Your task to perform on an android device: Go to Google maps Image 0: 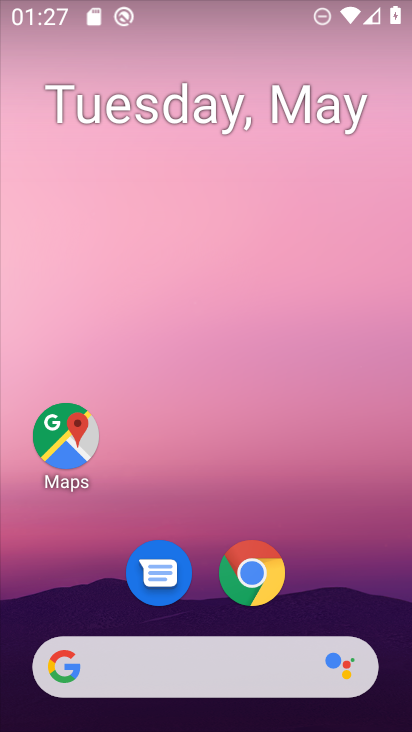
Step 0: click (73, 440)
Your task to perform on an android device: Go to Google maps Image 1: 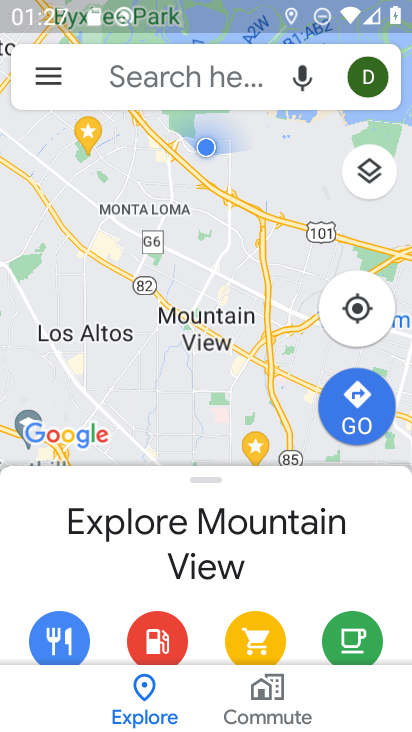
Step 1: task complete